Your task to perform on an android device: turn on javascript in the chrome app Image 0: 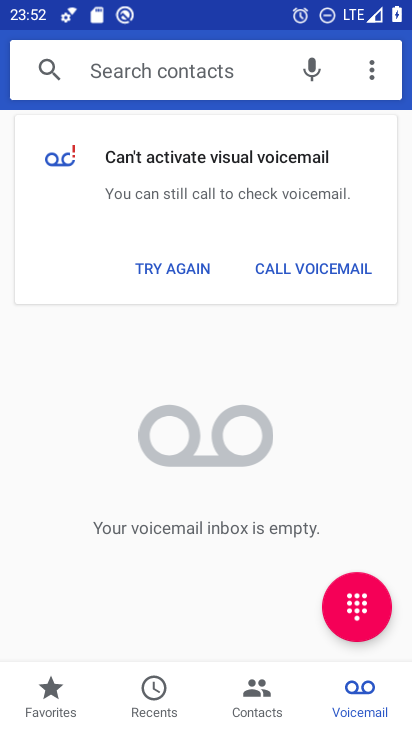
Step 0: press home button
Your task to perform on an android device: turn on javascript in the chrome app Image 1: 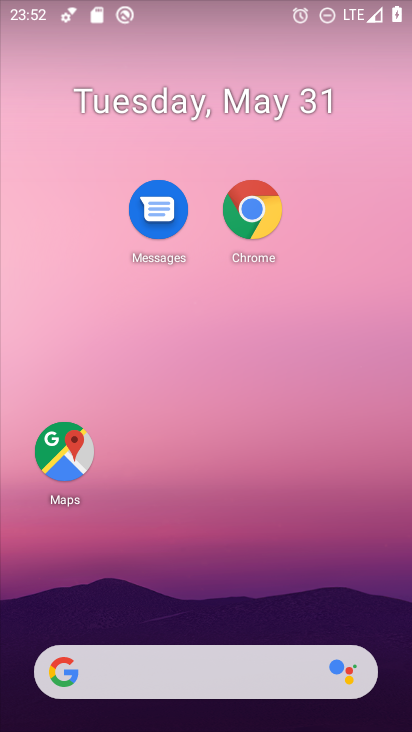
Step 1: click (250, 204)
Your task to perform on an android device: turn on javascript in the chrome app Image 2: 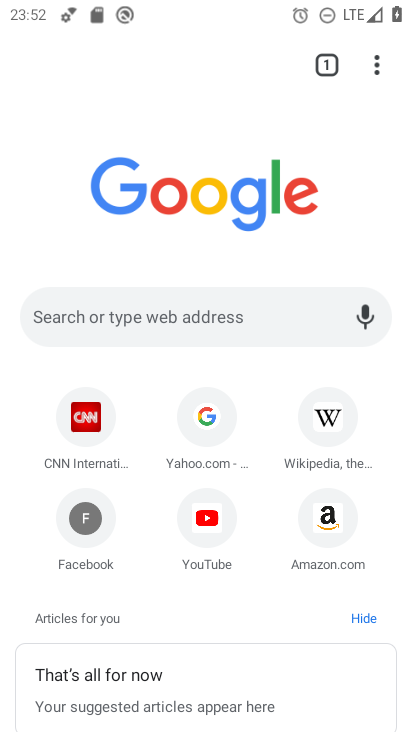
Step 2: click (374, 58)
Your task to perform on an android device: turn on javascript in the chrome app Image 3: 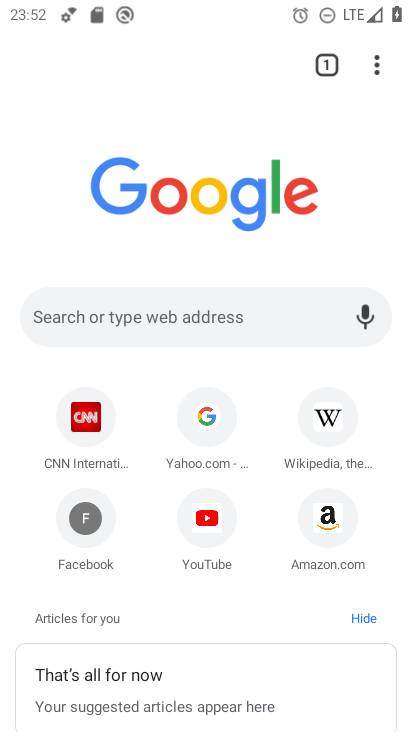
Step 3: click (379, 60)
Your task to perform on an android device: turn on javascript in the chrome app Image 4: 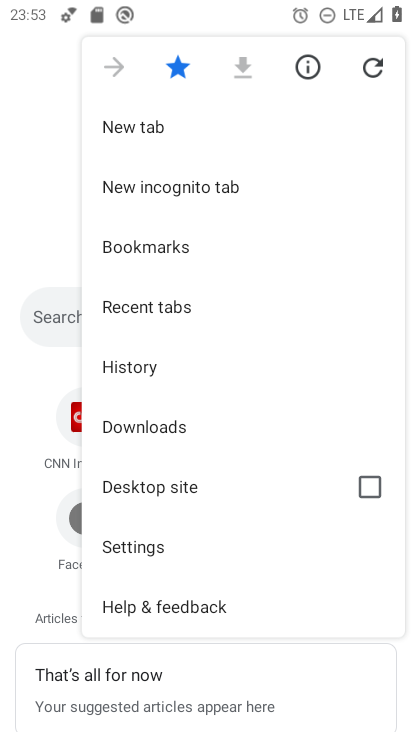
Step 4: click (172, 545)
Your task to perform on an android device: turn on javascript in the chrome app Image 5: 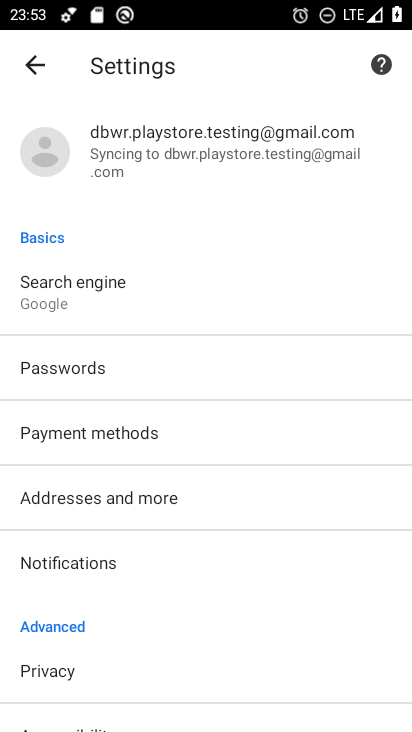
Step 5: drag from (205, 650) to (239, 125)
Your task to perform on an android device: turn on javascript in the chrome app Image 6: 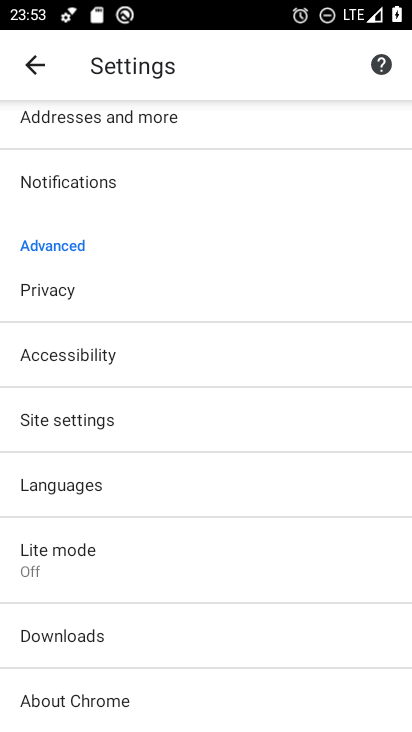
Step 6: click (125, 414)
Your task to perform on an android device: turn on javascript in the chrome app Image 7: 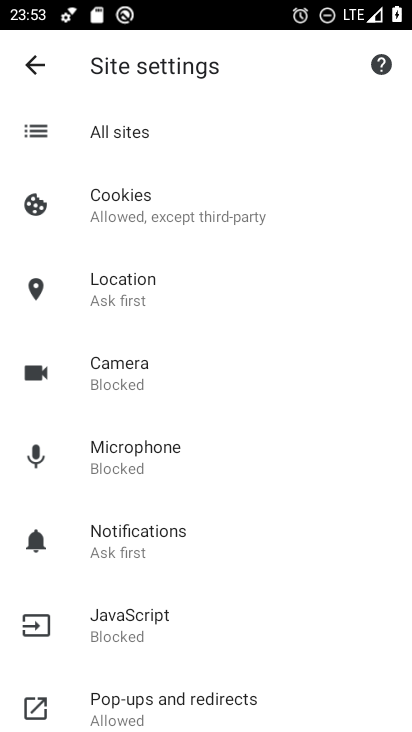
Step 7: click (161, 627)
Your task to perform on an android device: turn on javascript in the chrome app Image 8: 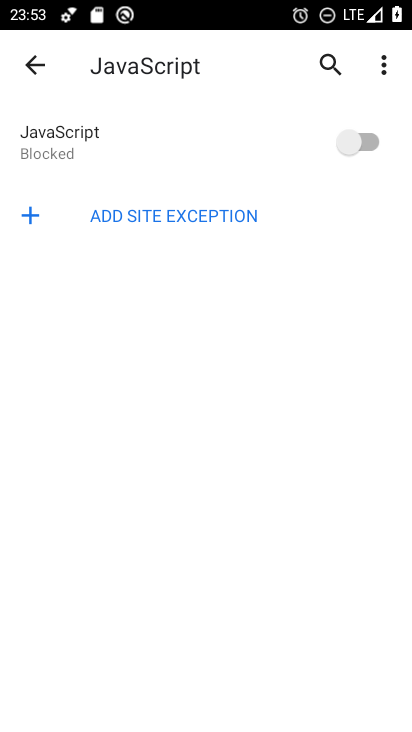
Step 8: click (362, 135)
Your task to perform on an android device: turn on javascript in the chrome app Image 9: 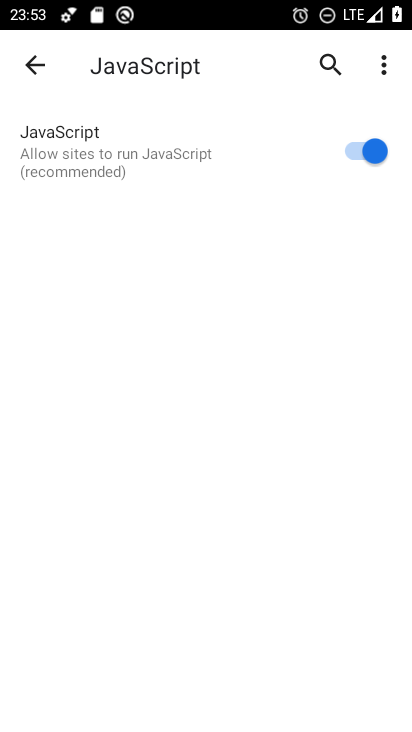
Step 9: task complete